Your task to perform on an android device: check storage Image 0: 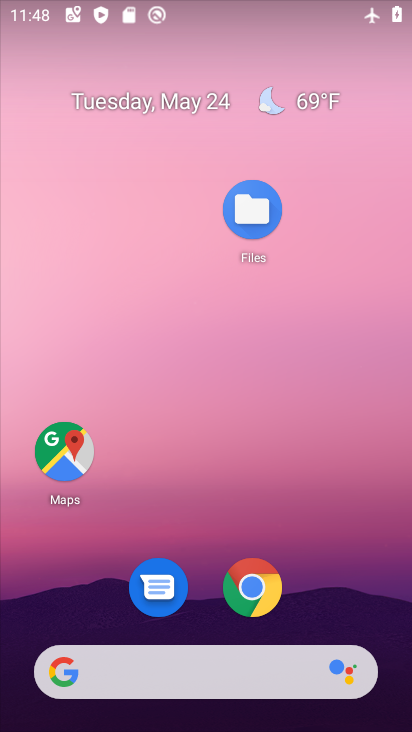
Step 0: drag from (318, 582) to (108, 246)
Your task to perform on an android device: check storage Image 1: 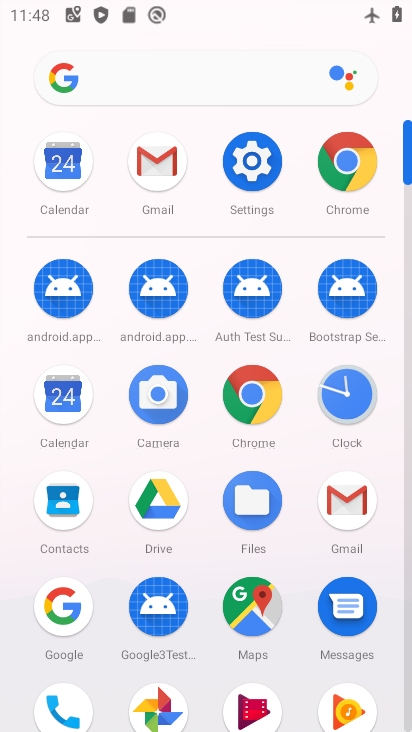
Step 1: click (265, 162)
Your task to perform on an android device: check storage Image 2: 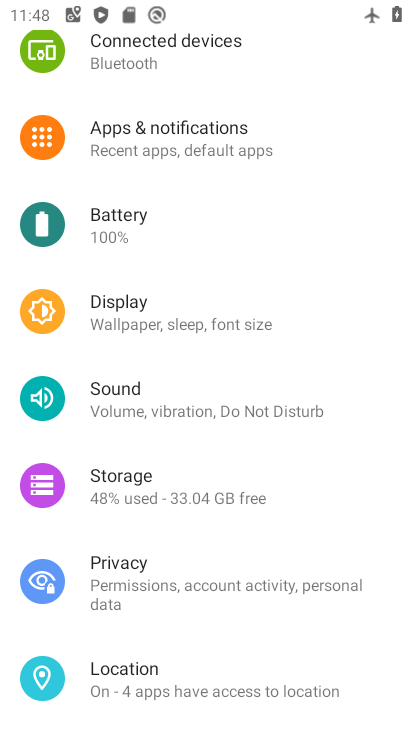
Step 2: click (131, 483)
Your task to perform on an android device: check storage Image 3: 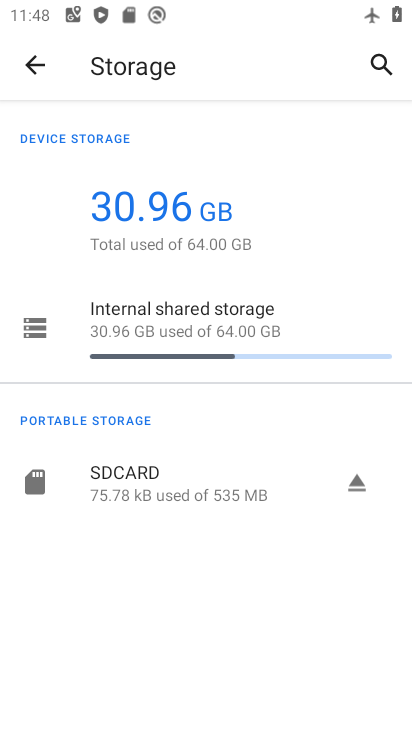
Step 3: task complete